Your task to perform on an android device: Show me the best rated vacuum on Walmart. Image 0: 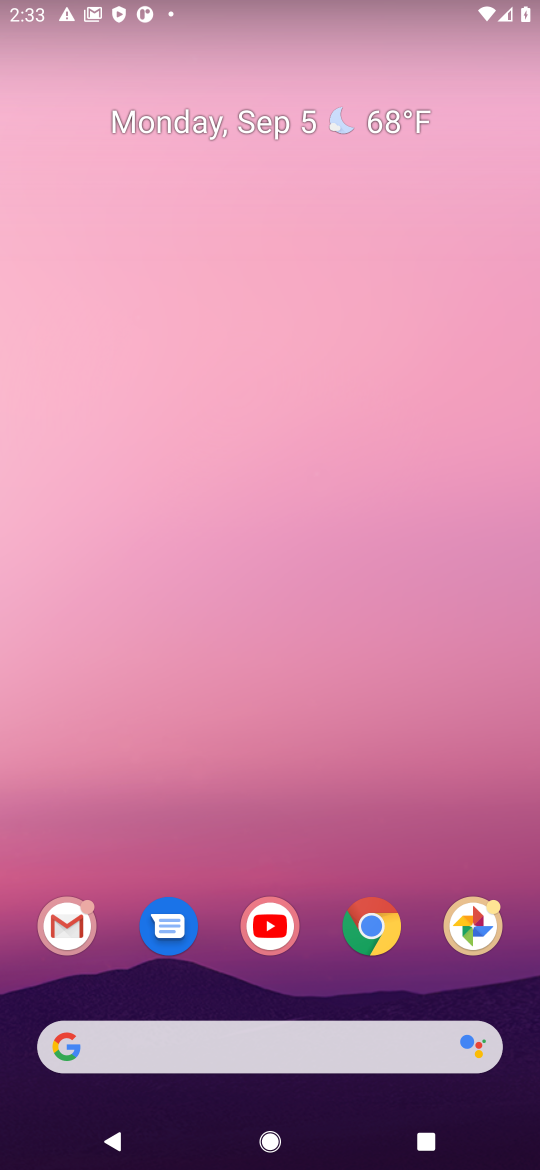
Step 0: click (375, 928)
Your task to perform on an android device: Show me the best rated vacuum on Walmart. Image 1: 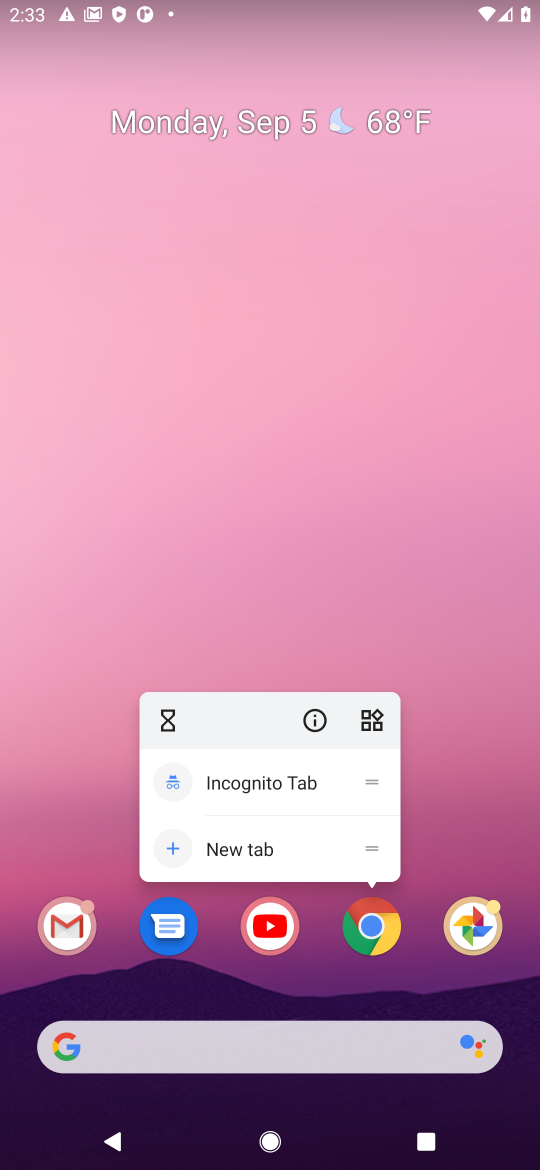
Step 1: click (374, 929)
Your task to perform on an android device: Show me the best rated vacuum on Walmart. Image 2: 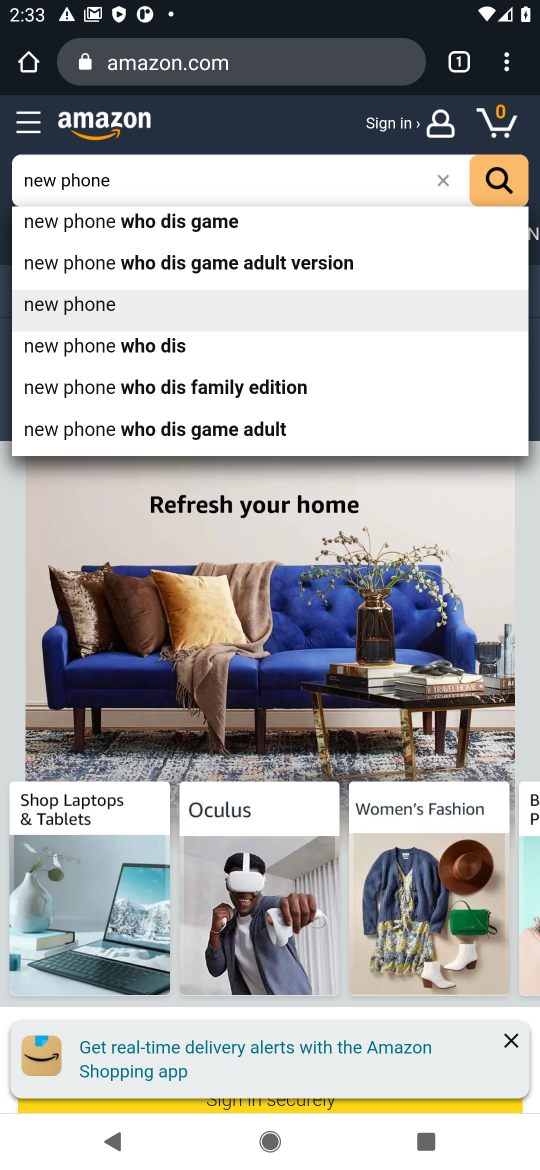
Step 2: click (248, 70)
Your task to perform on an android device: Show me the best rated vacuum on Walmart. Image 3: 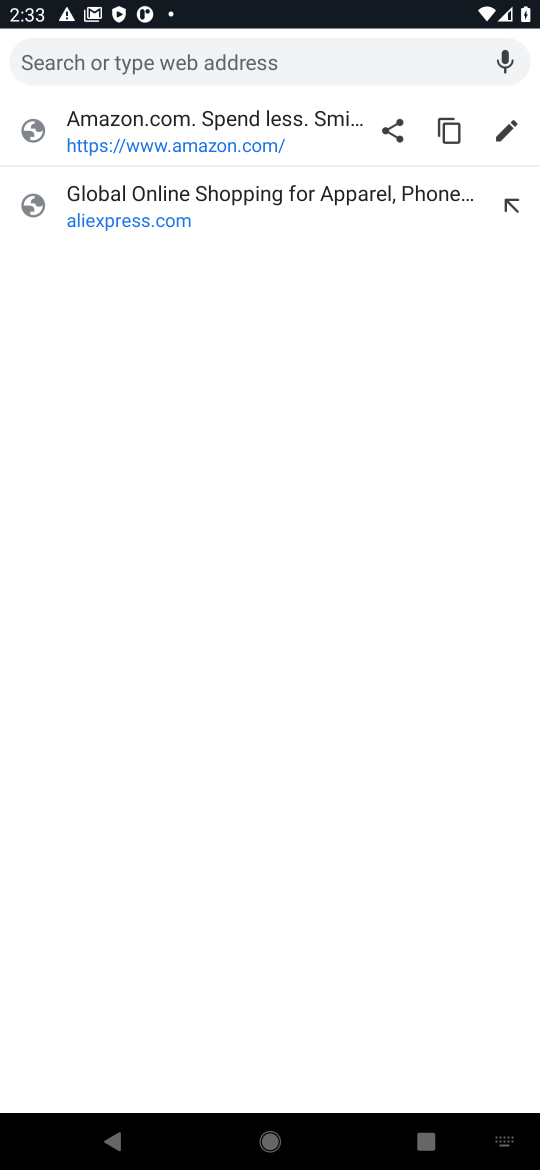
Step 3: type "walmart"
Your task to perform on an android device: Show me the best rated vacuum on Walmart. Image 4: 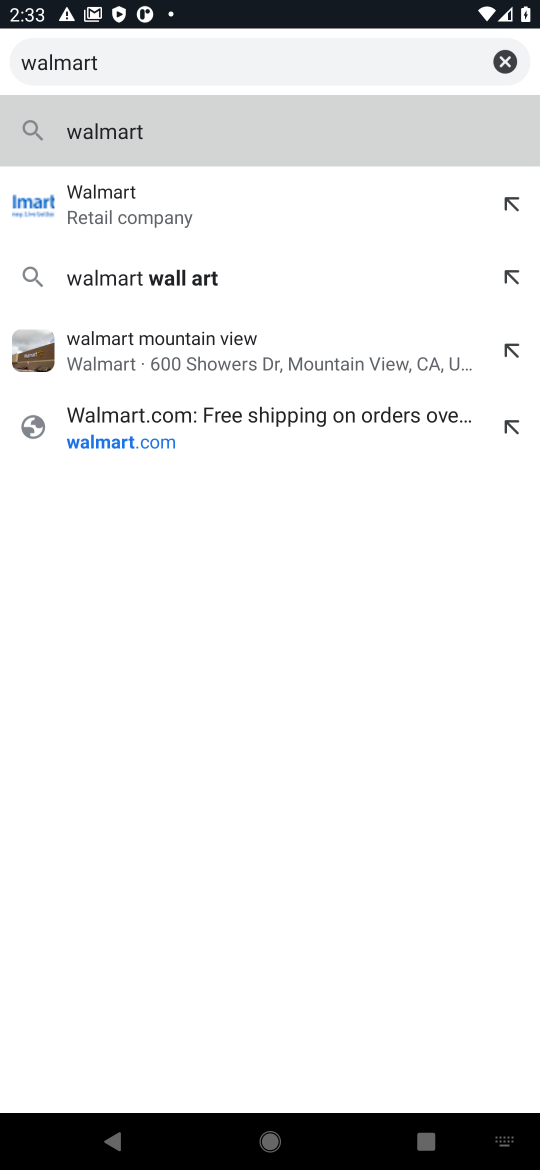
Step 4: click (169, 210)
Your task to perform on an android device: Show me the best rated vacuum on Walmart. Image 5: 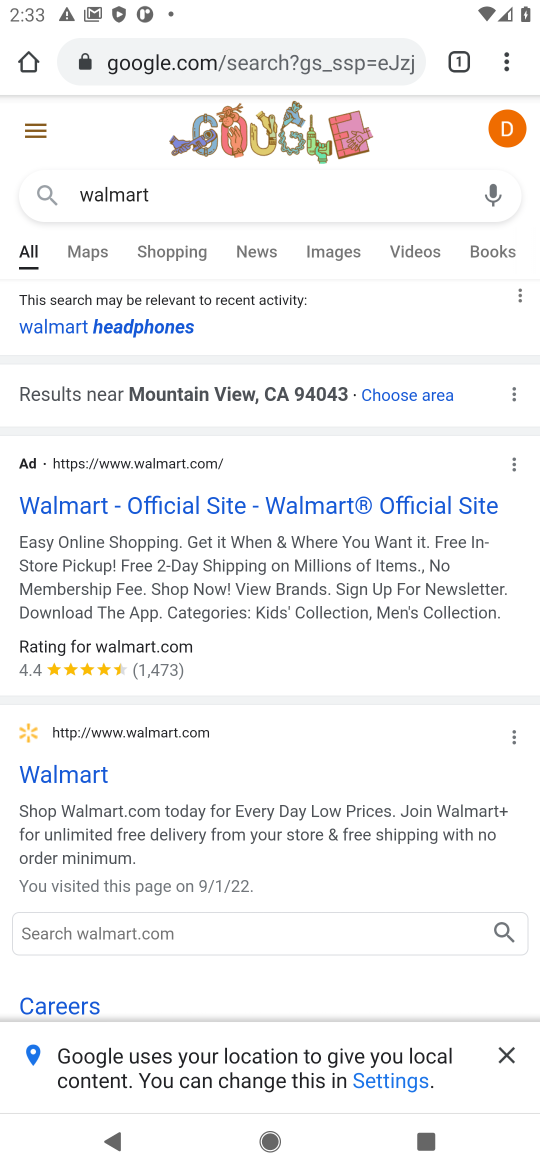
Step 5: click (69, 774)
Your task to perform on an android device: Show me the best rated vacuum on Walmart. Image 6: 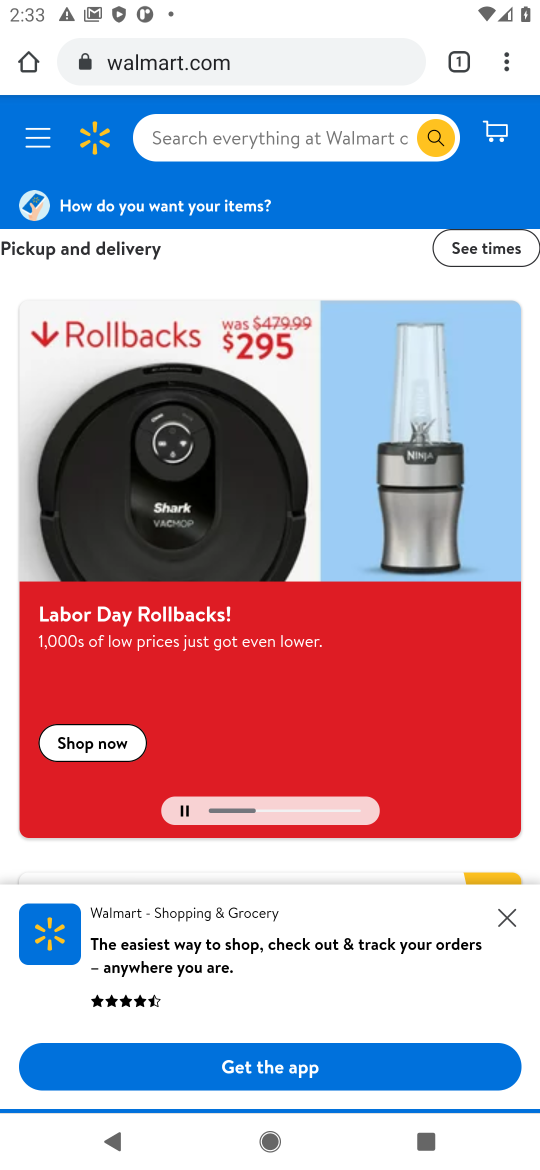
Step 6: click (331, 143)
Your task to perform on an android device: Show me the best rated vacuum on Walmart. Image 7: 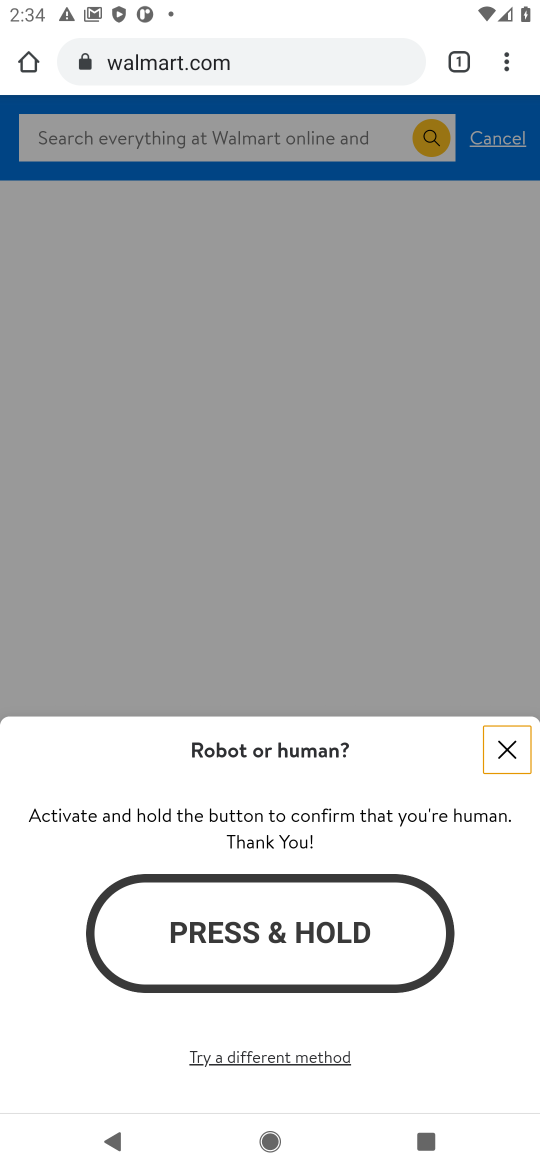
Step 7: click (505, 742)
Your task to perform on an android device: Show me the best rated vacuum on Walmart. Image 8: 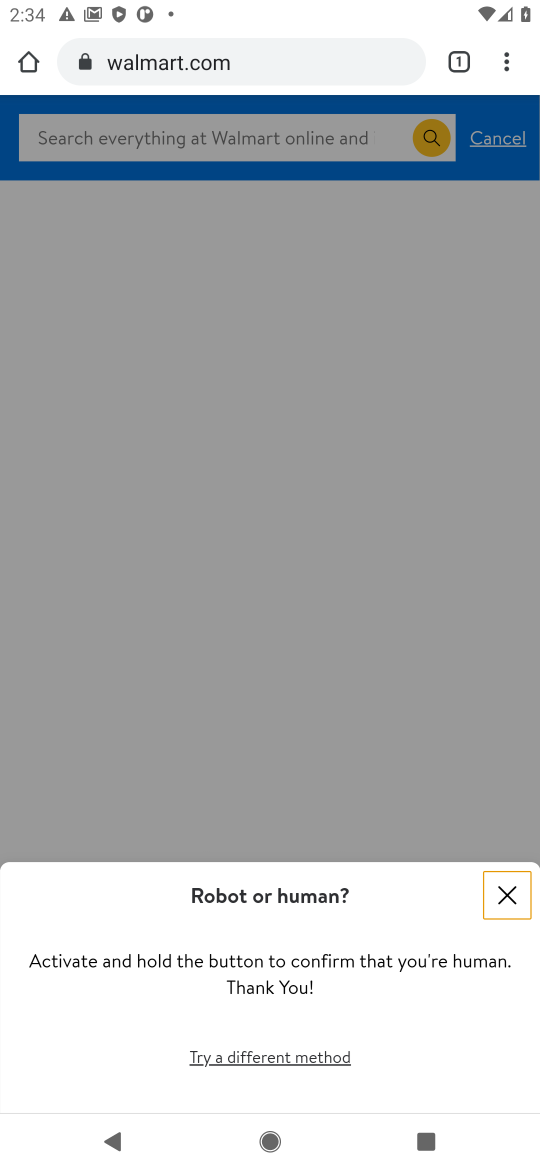
Step 8: click (212, 142)
Your task to perform on an android device: Show me the best rated vacuum on Walmart. Image 9: 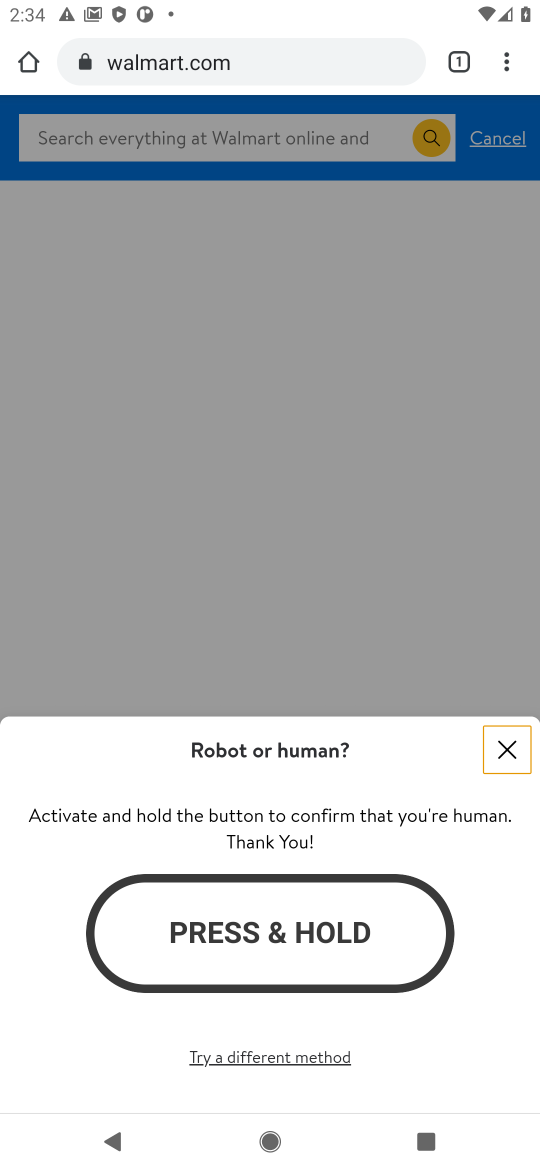
Step 9: click (502, 755)
Your task to perform on an android device: Show me the best rated vacuum on Walmart. Image 10: 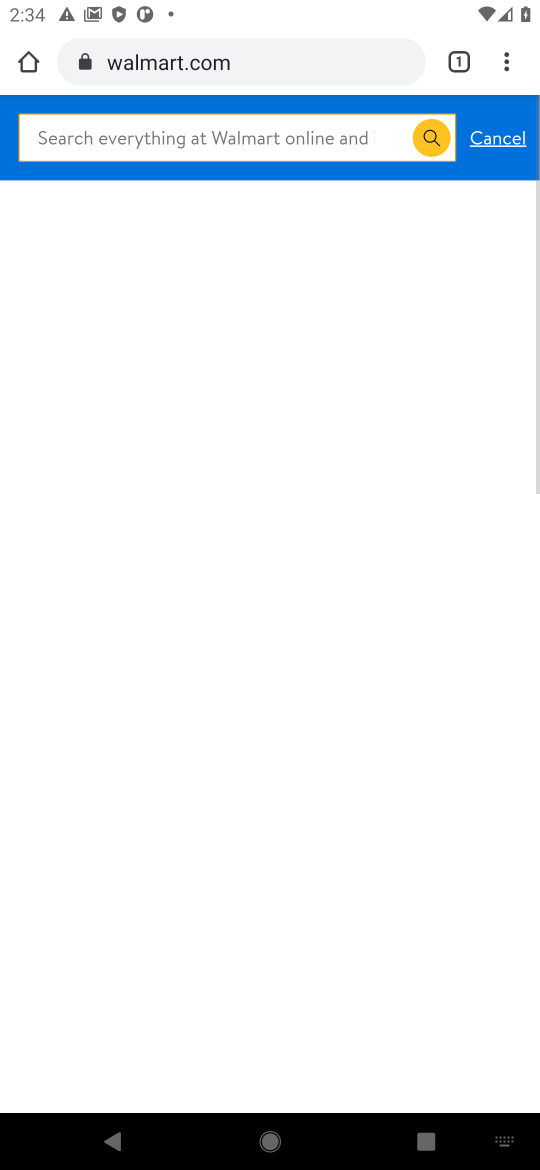
Step 10: click (219, 139)
Your task to perform on an android device: Show me the best rated vacuum on Walmart. Image 11: 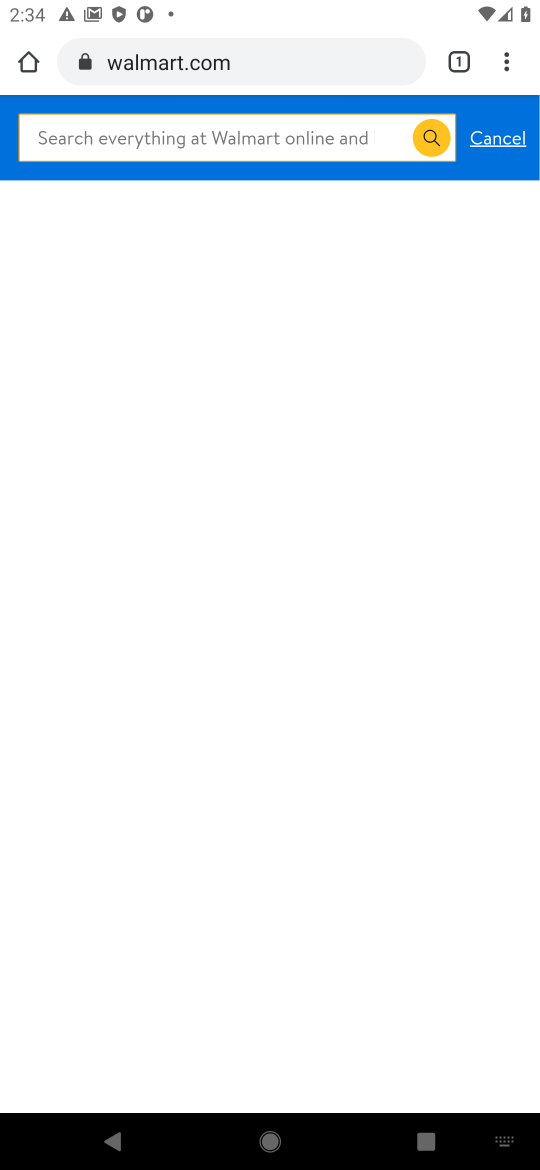
Step 11: click (219, 139)
Your task to perform on an android device: Show me the best rated vacuum on Walmart. Image 12: 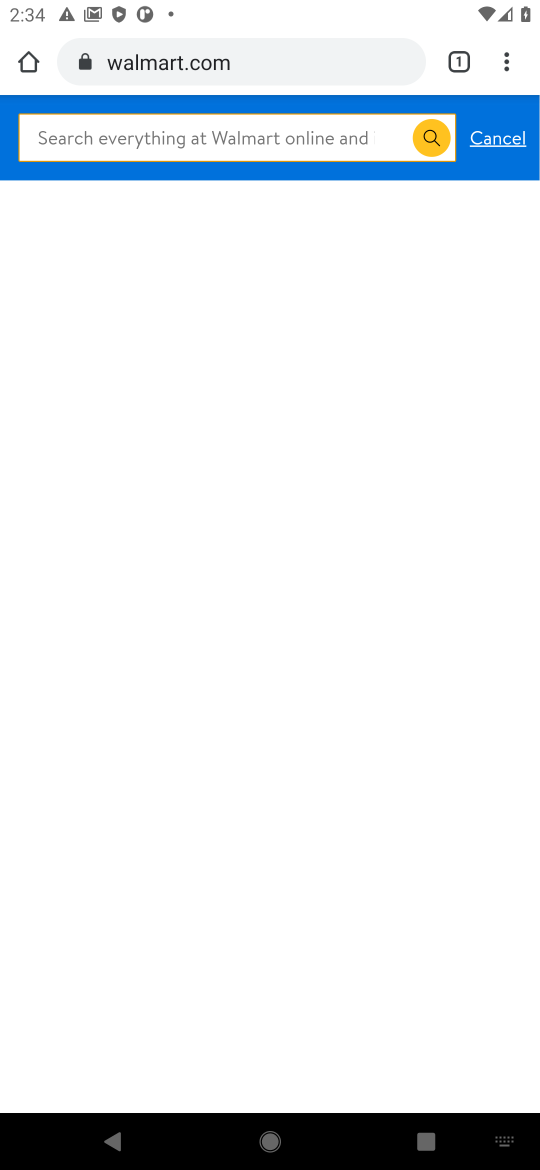
Step 12: click (252, 138)
Your task to perform on an android device: Show me the best rated vacuum on Walmart. Image 13: 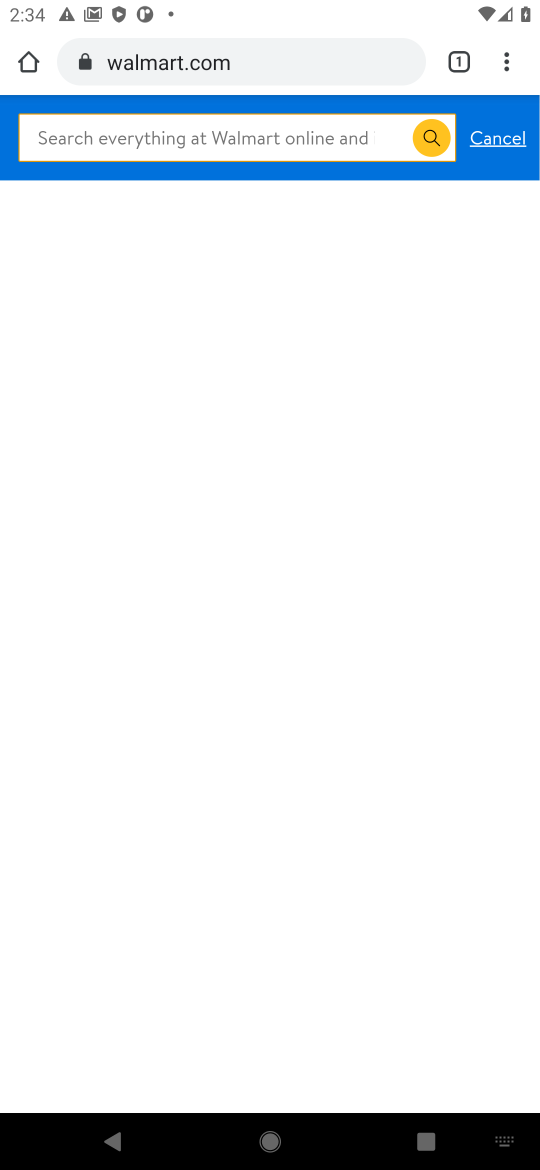
Step 13: type "best rated vacuum"
Your task to perform on an android device: Show me the best rated vacuum on Walmart. Image 14: 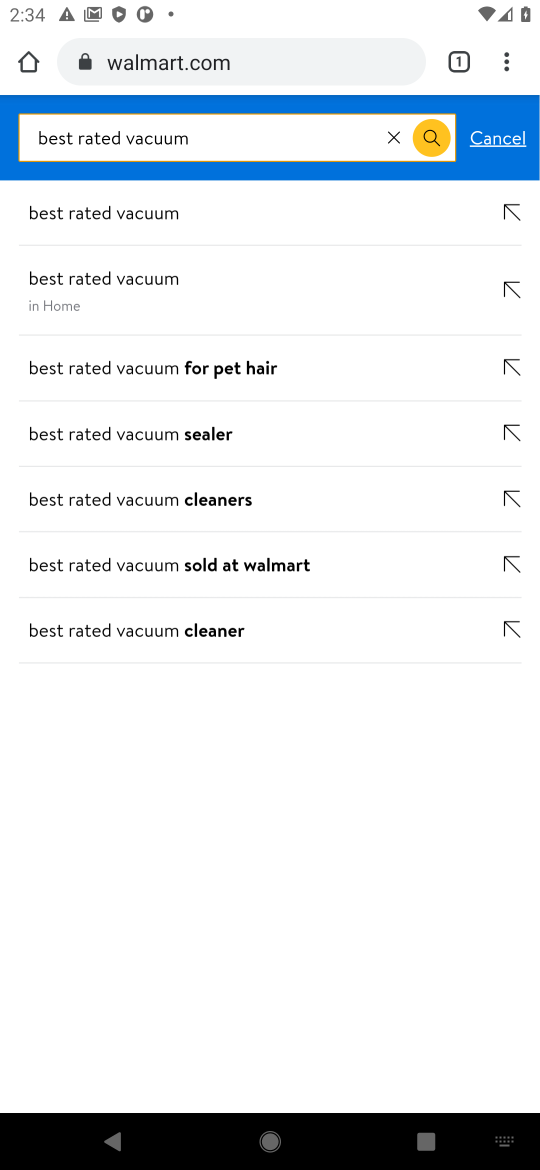
Step 14: click (89, 213)
Your task to perform on an android device: Show me the best rated vacuum on Walmart. Image 15: 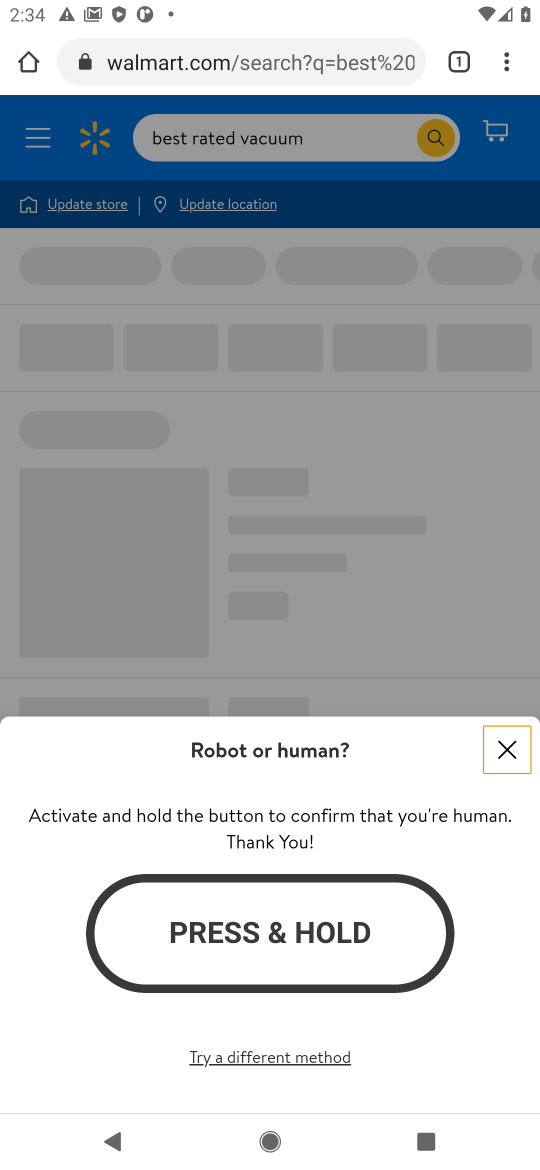
Step 15: click (508, 751)
Your task to perform on an android device: Show me the best rated vacuum on Walmart. Image 16: 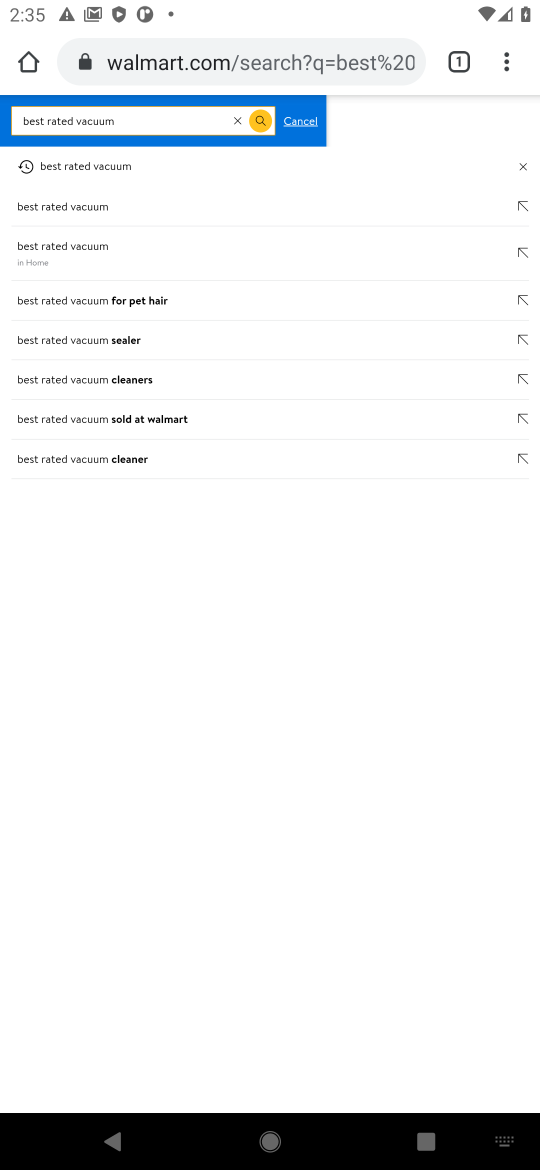
Step 16: click (93, 207)
Your task to perform on an android device: Show me the best rated vacuum on Walmart. Image 17: 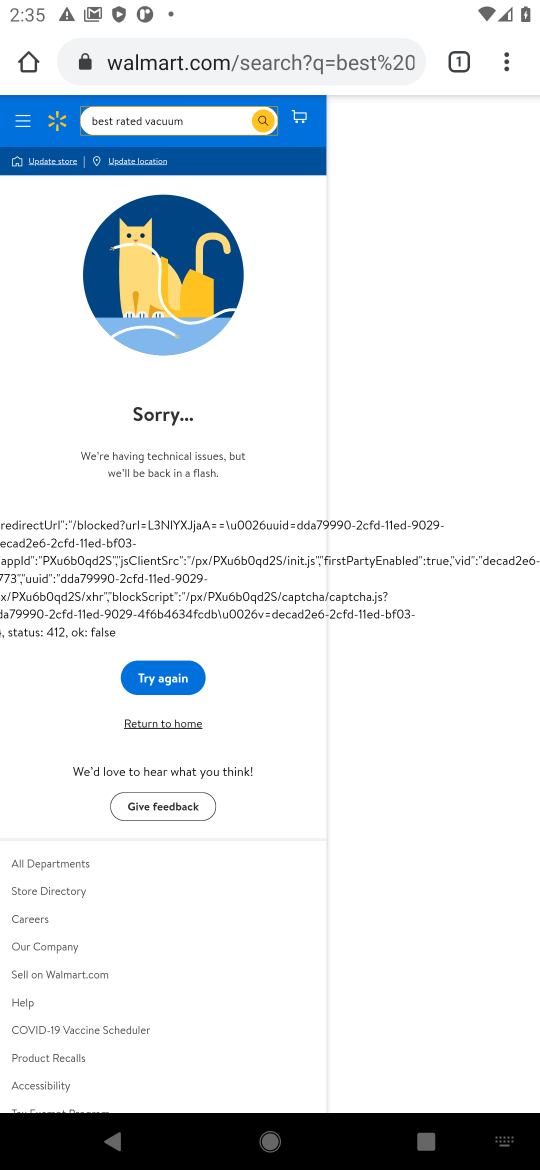
Step 17: task complete